Your task to perform on an android device: Open Google Chrome and click the shortcut for Amazon.com Image 0: 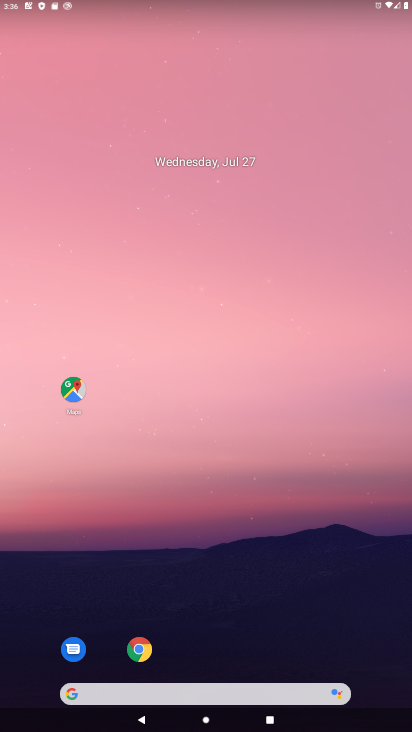
Step 0: click (138, 650)
Your task to perform on an android device: Open Google Chrome and click the shortcut for Amazon.com Image 1: 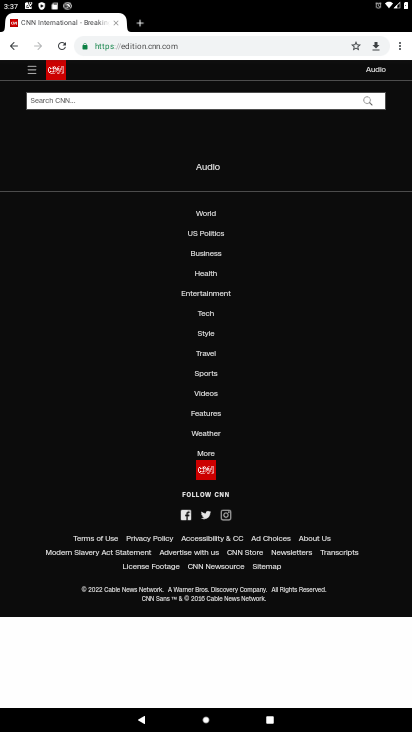
Step 1: click (399, 54)
Your task to perform on an android device: Open Google Chrome and click the shortcut for Amazon.com Image 2: 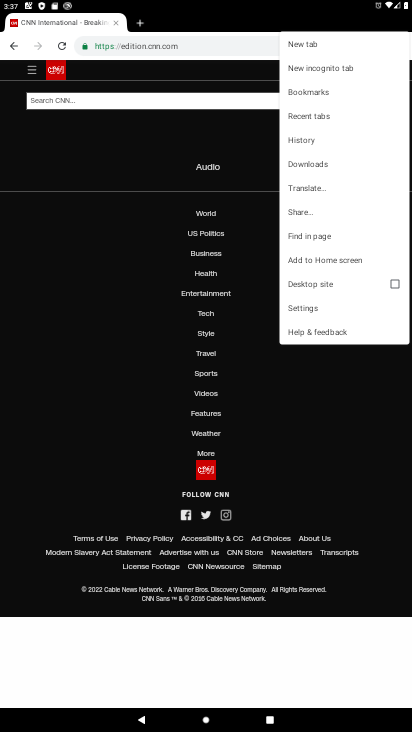
Step 2: click (303, 43)
Your task to perform on an android device: Open Google Chrome and click the shortcut for Amazon.com Image 3: 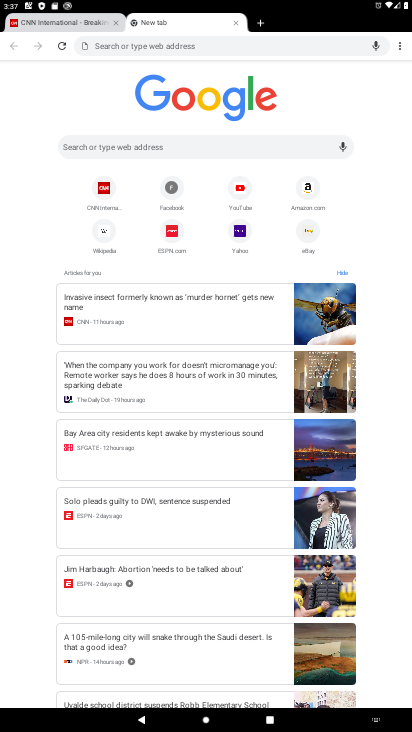
Step 3: click (308, 187)
Your task to perform on an android device: Open Google Chrome and click the shortcut for Amazon.com Image 4: 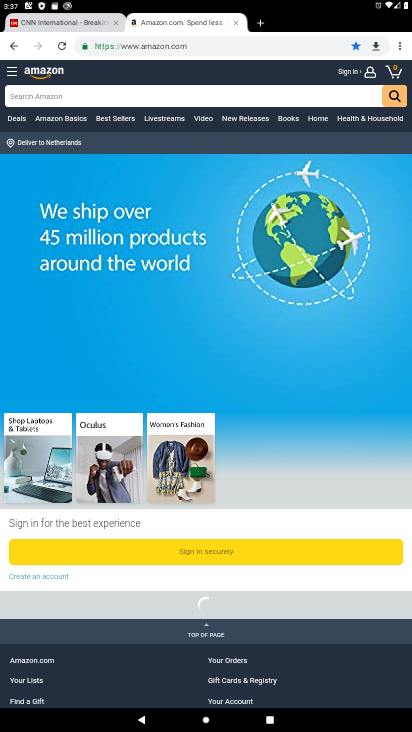
Step 4: task complete